Your task to perform on an android device: Open ESPN.com Image 0: 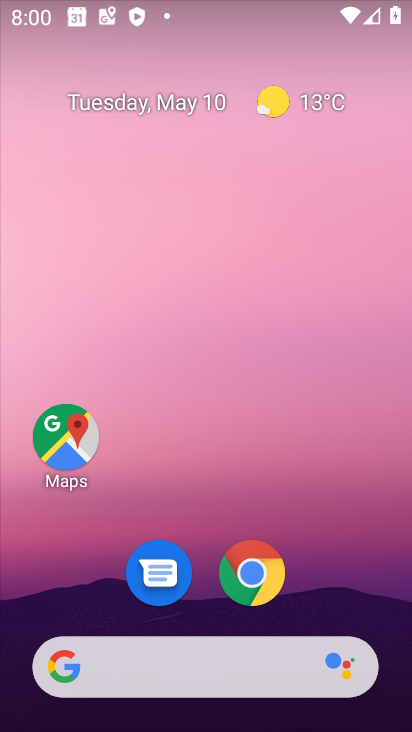
Step 0: click (260, 586)
Your task to perform on an android device: Open ESPN.com Image 1: 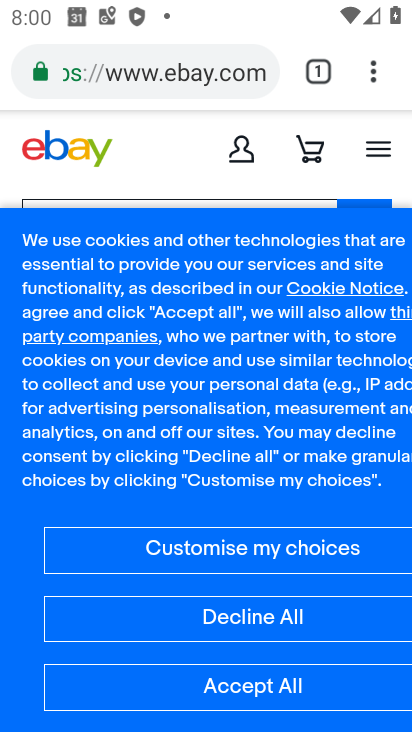
Step 1: click (142, 80)
Your task to perform on an android device: Open ESPN.com Image 2: 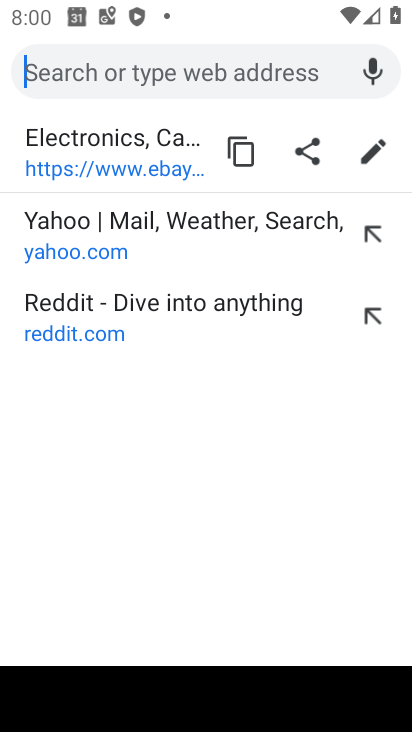
Step 2: type "espn.com"
Your task to perform on an android device: Open ESPN.com Image 3: 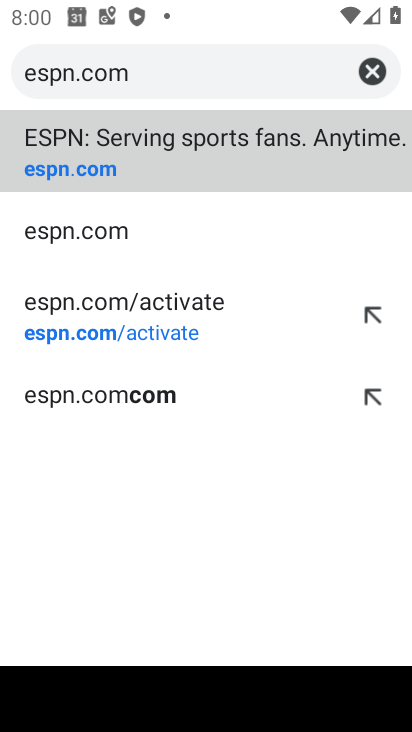
Step 3: click (45, 247)
Your task to perform on an android device: Open ESPN.com Image 4: 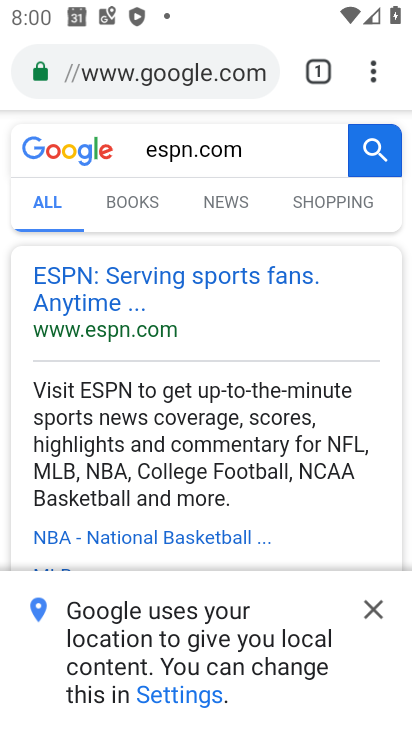
Step 4: click (67, 316)
Your task to perform on an android device: Open ESPN.com Image 5: 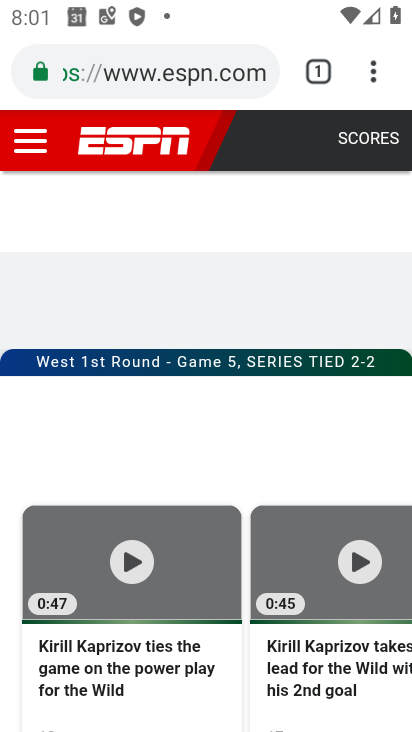
Step 5: task complete